Your task to perform on an android device: Open the web browser Image 0: 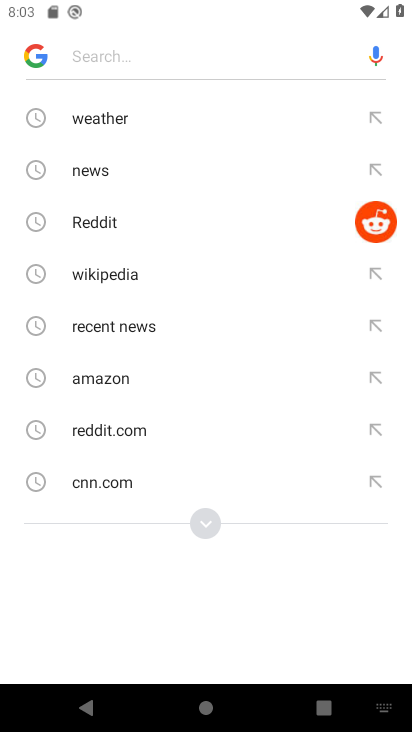
Step 0: press home button
Your task to perform on an android device: Open the web browser Image 1: 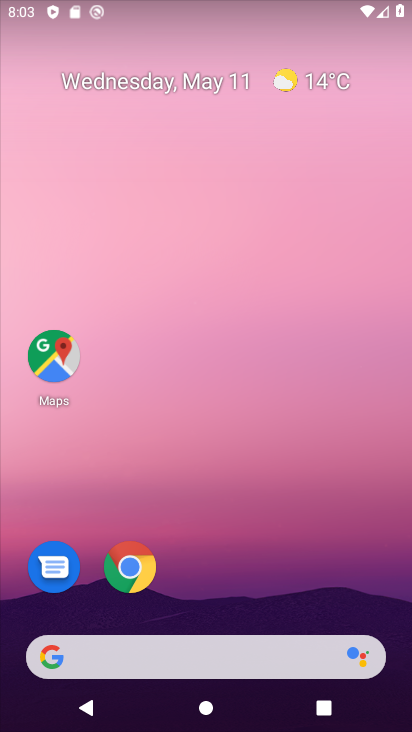
Step 1: click (132, 567)
Your task to perform on an android device: Open the web browser Image 2: 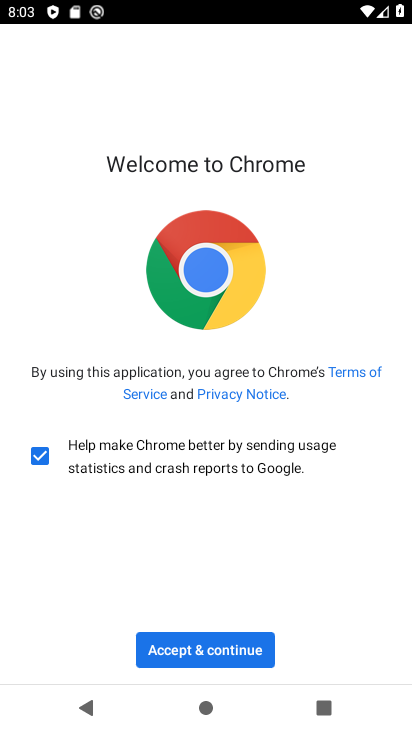
Step 2: click (237, 643)
Your task to perform on an android device: Open the web browser Image 3: 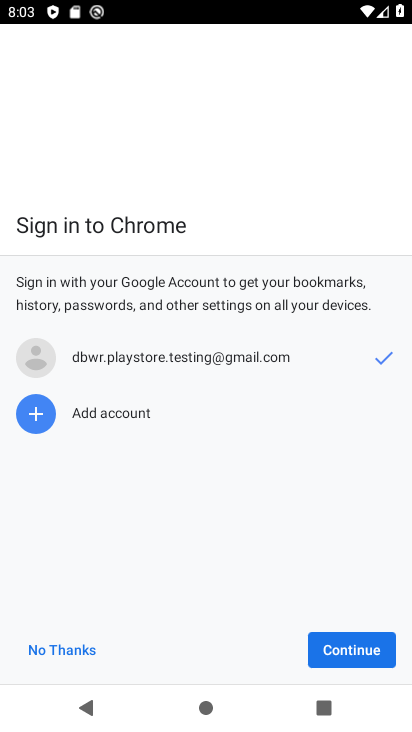
Step 3: click (343, 644)
Your task to perform on an android device: Open the web browser Image 4: 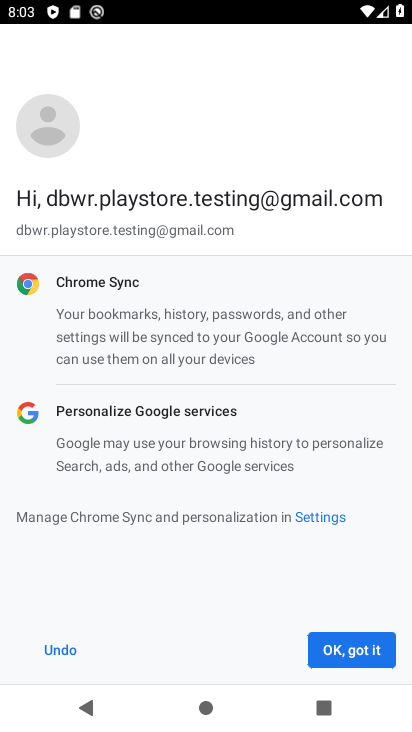
Step 4: click (363, 649)
Your task to perform on an android device: Open the web browser Image 5: 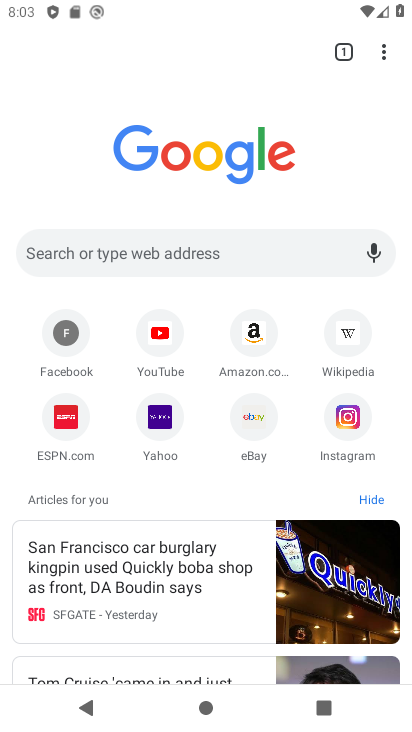
Step 5: task complete